Your task to perform on an android device: Search for pizza restaurants on Maps Image 0: 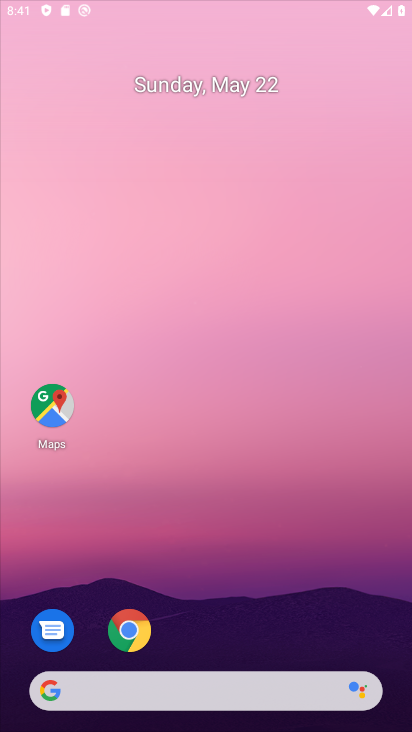
Step 0: press home button
Your task to perform on an android device: Search for pizza restaurants on Maps Image 1: 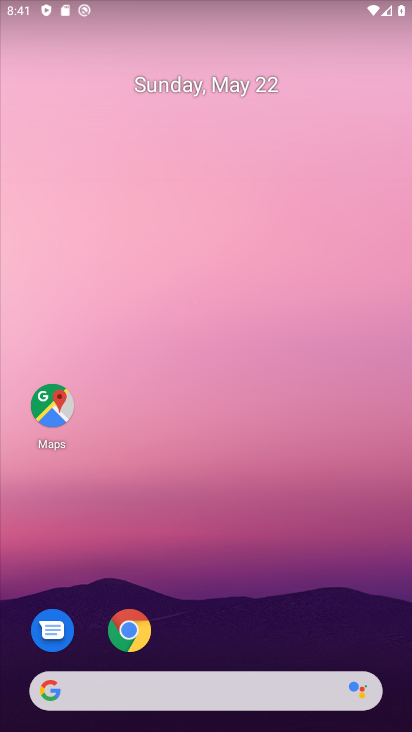
Step 1: drag from (233, 659) to (317, 73)
Your task to perform on an android device: Search for pizza restaurants on Maps Image 2: 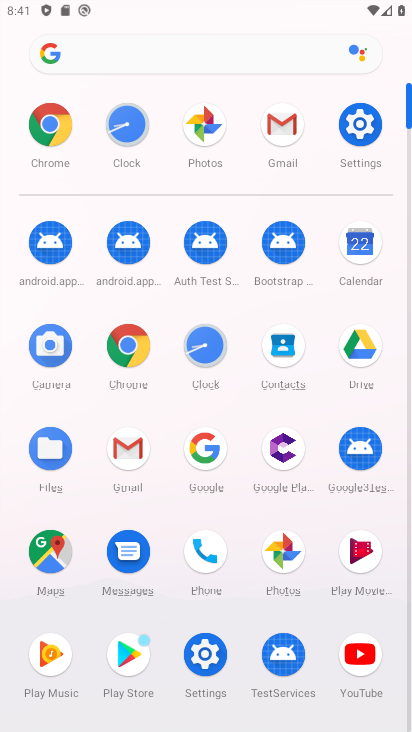
Step 2: click (210, 150)
Your task to perform on an android device: Search for pizza restaurants on Maps Image 3: 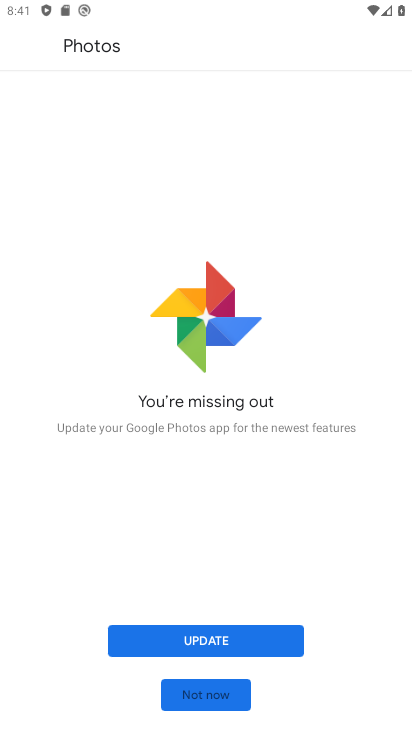
Step 3: click (169, 631)
Your task to perform on an android device: Search for pizza restaurants on Maps Image 4: 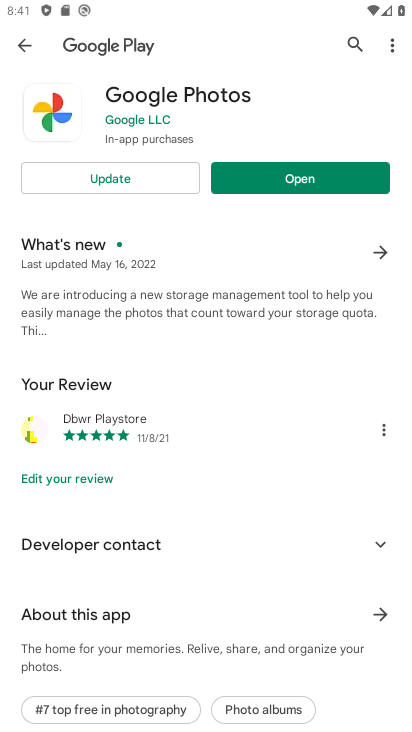
Step 4: click (130, 169)
Your task to perform on an android device: Search for pizza restaurants on Maps Image 5: 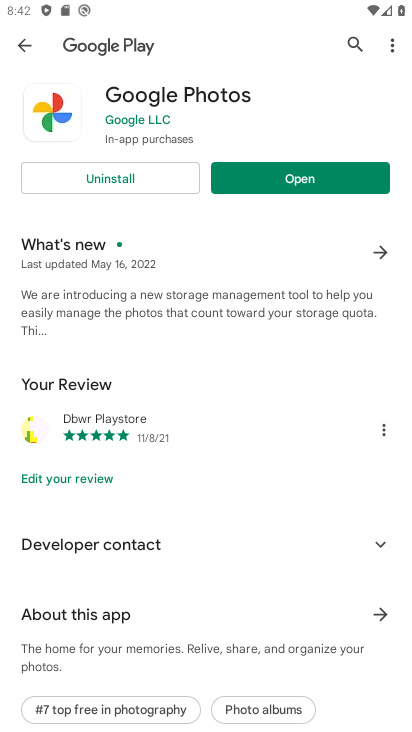
Step 5: click (275, 176)
Your task to perform on an android device: Search for pizza restaurants on Maps Image 6: 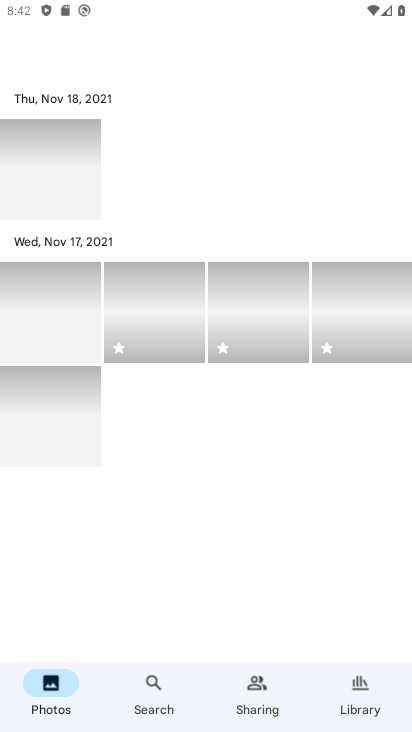
Step 6: press home button
Your task to perform on an android device: Search for pizza restaurants on Maps Image 7: 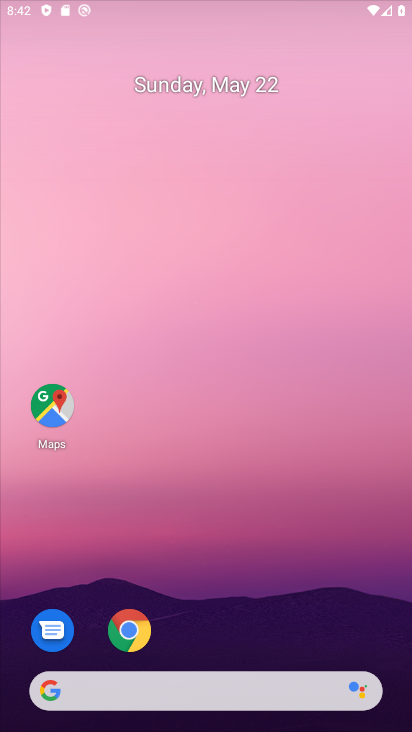
Step 7: drag from (221, 624) to (232, 366)
Your task to perform on an android device: Search for pizza restaurants on Maps Image 8: 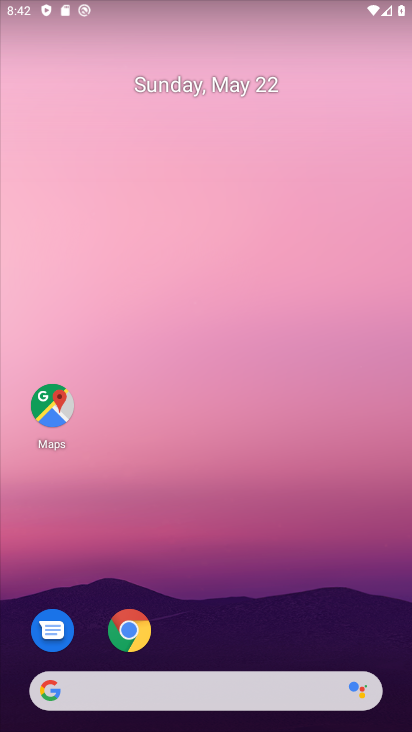
Step 8: click (55, 402)
Your task to perform on an android device: Search for pizza restaurants on Maps Image 9: 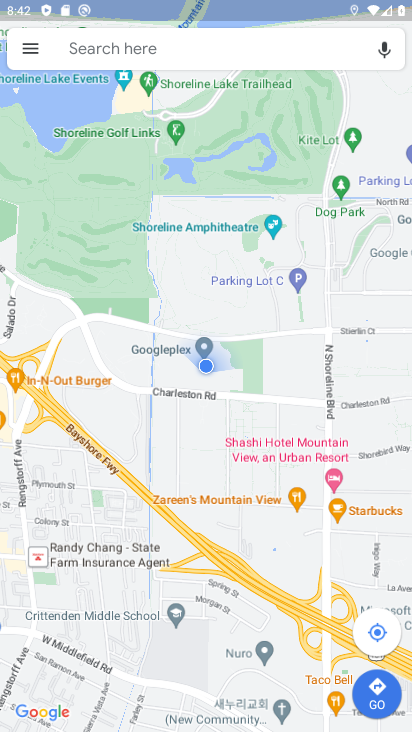
Step 9: click (186, 37)
Your task to perform on an android device: Search for pizza restaurants on Maps Image 10: 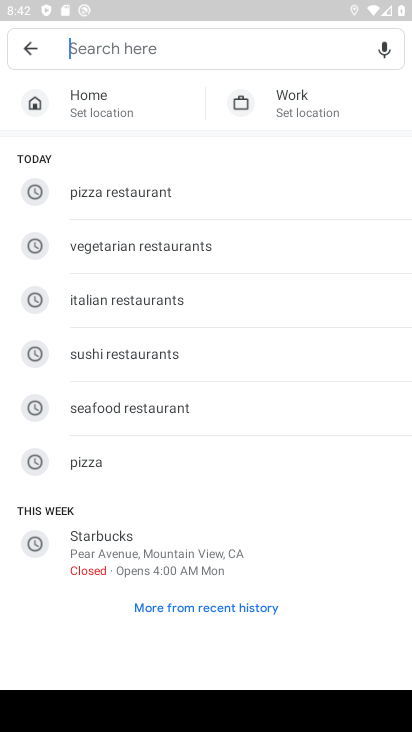
Step 10: click (177, 200)
Your task to perform on an android device: Search for pizza restaurants on Maps Image 11: 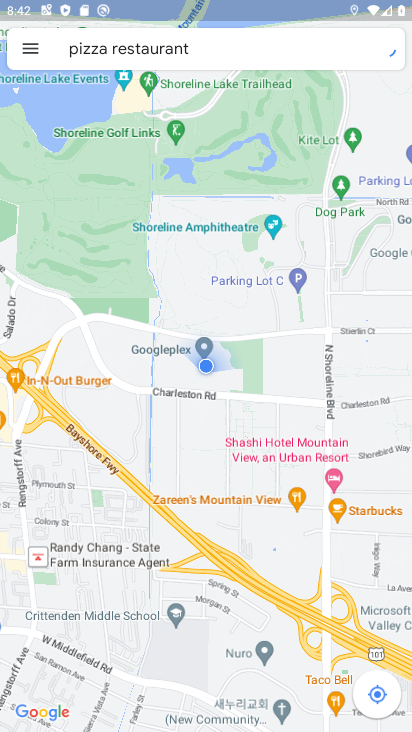
Step 11: task complete